Your task to perform on an android device: change notifications settings Image 0: 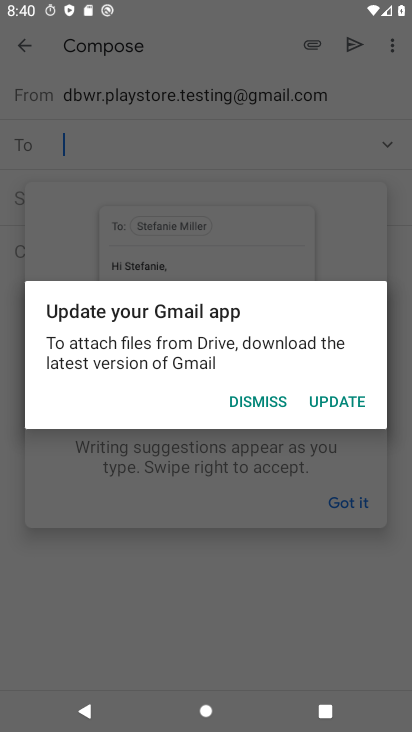
Step 0: press home button
Your task to perform on an android device: change notifications settings Image 1: 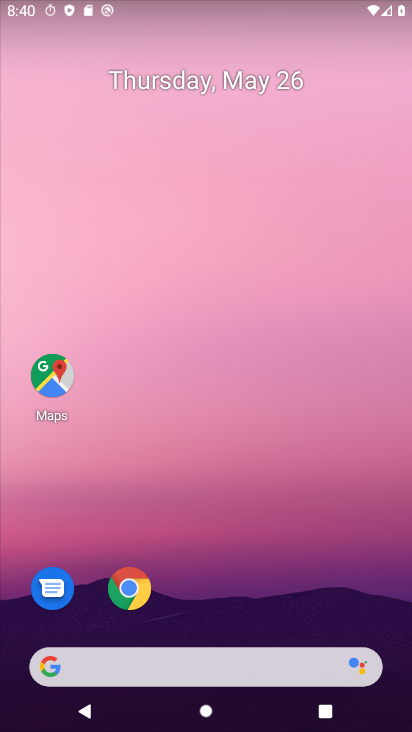
Step 1: drag from (243, 589) to (243, 21)
Your task to perform on an android device: change notifications settings Image 2: 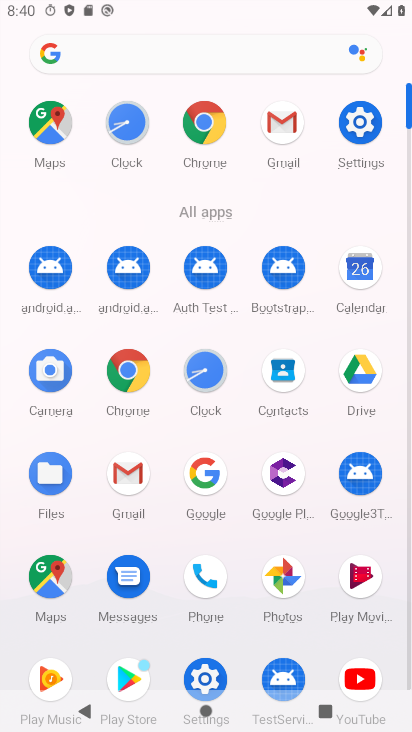
Step 2: click (360, 115)
Your task to perform on an android device: change notifications settings Image 3: 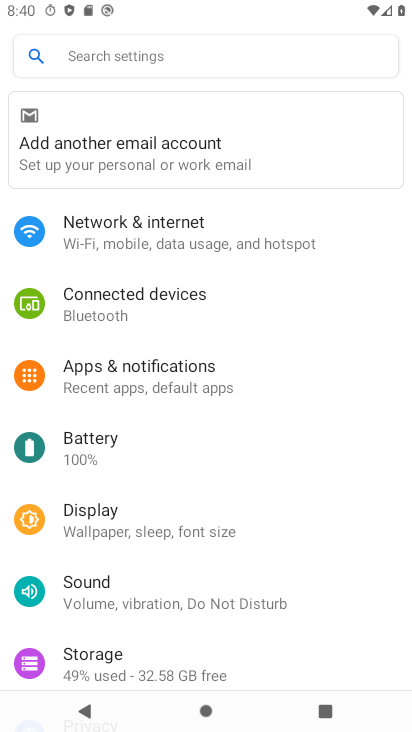
Step 3: click (174, 383)
Your task to perform on an android device: change notifications settings Image 4: 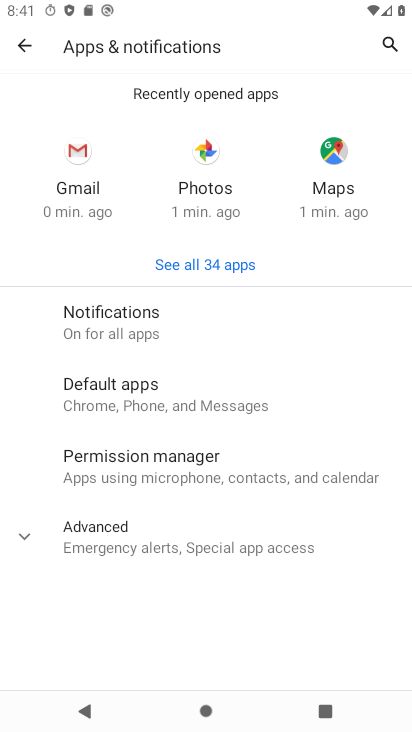
Step 4: click (161, 311)
Your task to perform on an android device: change notifications settings Image 5: 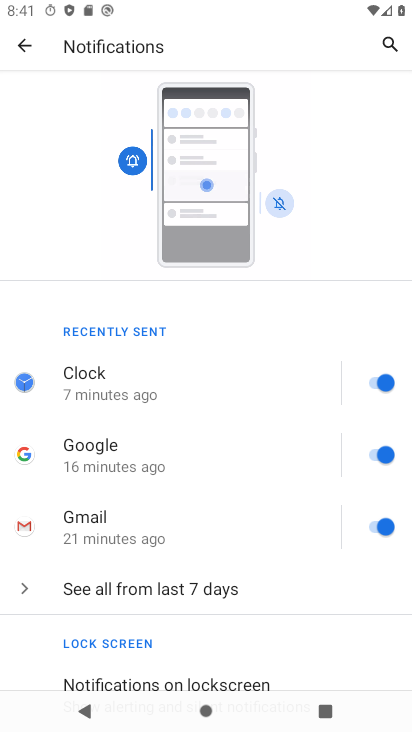
Step 5: drag from (165, 644) to (187, 544)
Your task to perform on an android device: change notifications settings Image 6: 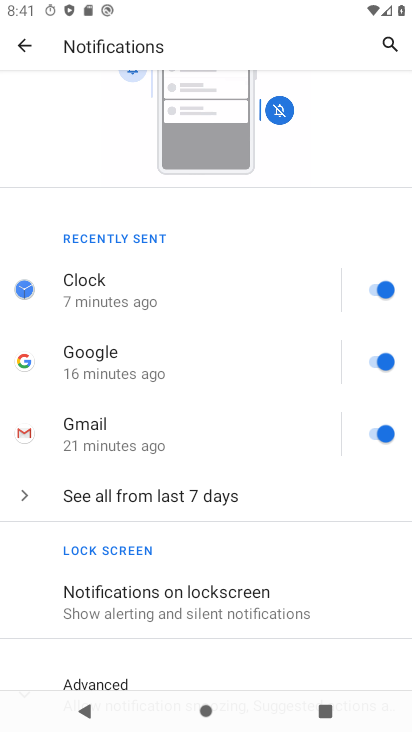
Step 6: click (173, 497)
Your task to perform on an android device: change notifications settings Image 7: 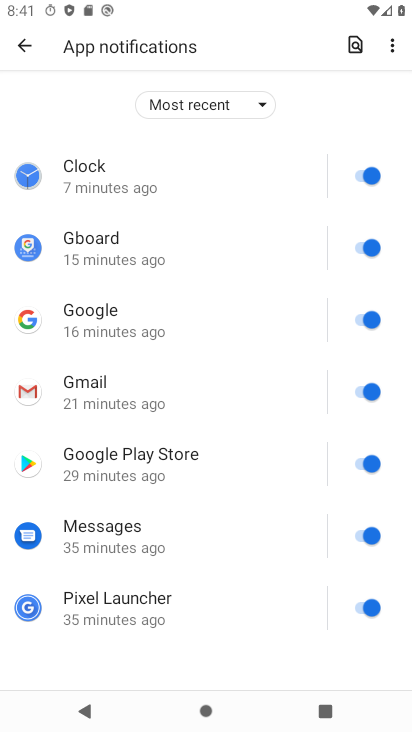
Step 7: click (354, 173)
Your task to perform on an android device: change notifications settings Image 8: 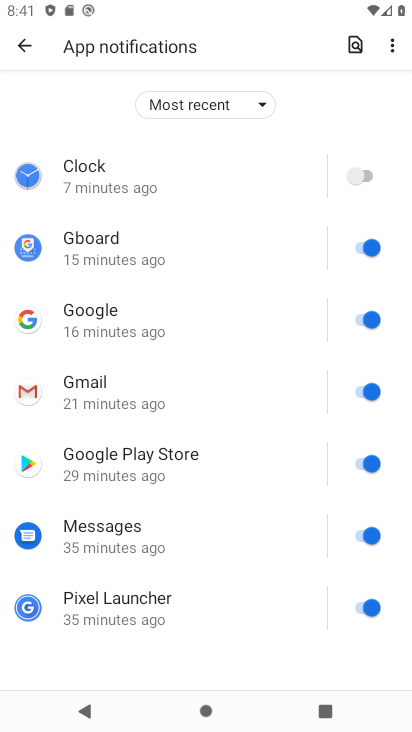
Step 8: click (366, 240)
Your task to perform on an android device: change notifications settings Image 9: 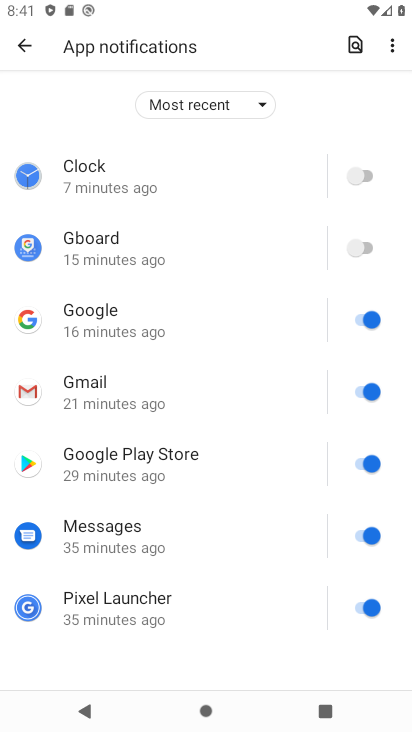
Step 9: click (352, 328)
Your task to perform on an android device: change notifications settings Image 10: 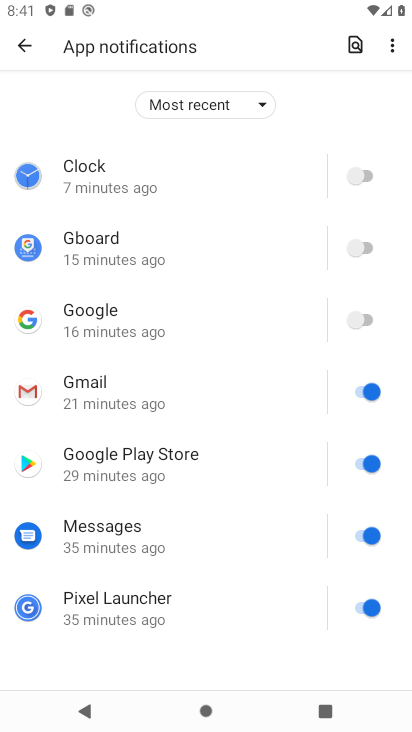
Step 10: click (377, 390)
Your task to perform on an android device: change notifications settings Image 11: 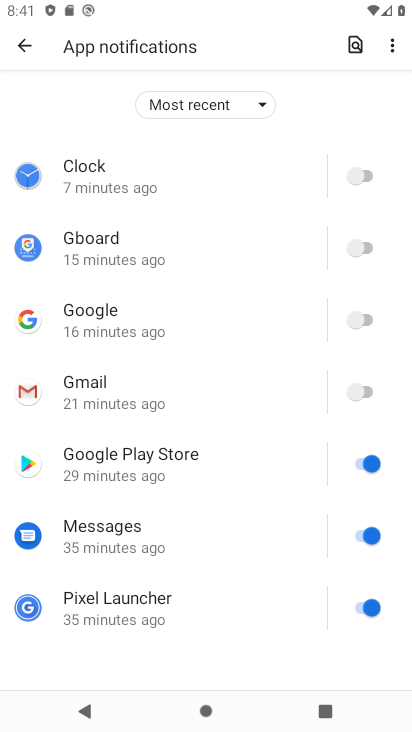
Step 11: click (364, 464)
Your task to perform on an android device: change notifications settings Image 12: 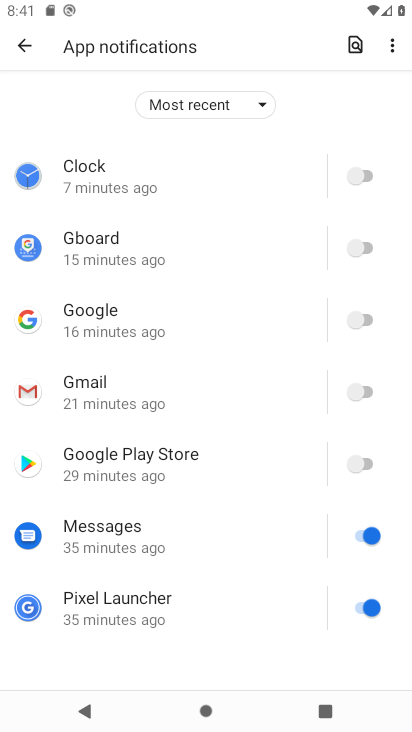
Step 12: click (359, 542)
Your task to perform on an android device: change notifications settings Image 13: 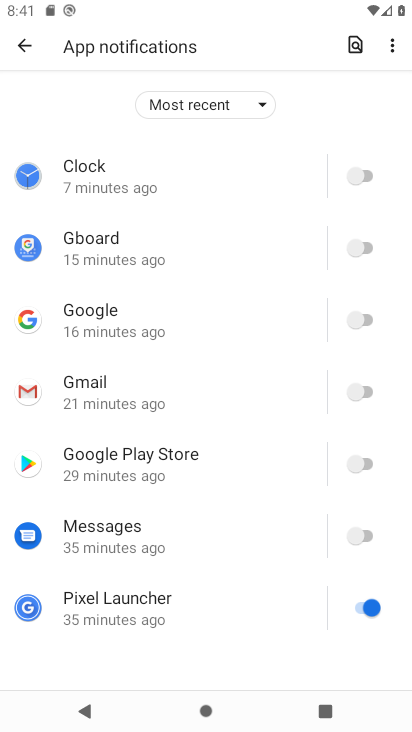
Step 13: click (371, 618)
Your task to perform on an android device: change notifications settings Image 14: 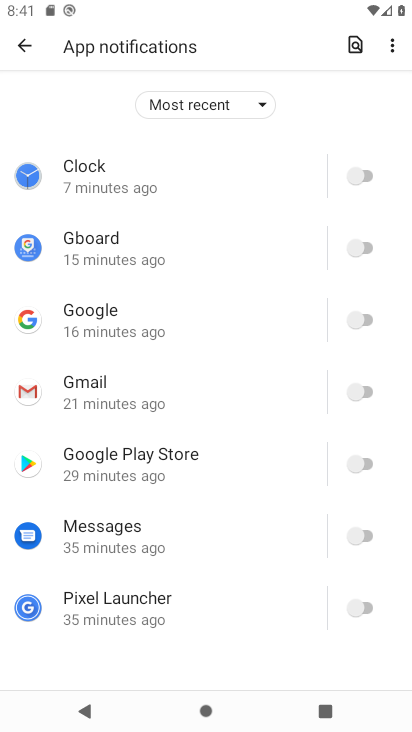
Step 14: drag from (281, 624) to (265, 151)
Your task to perform on an android device: change notifications settings Image 15: 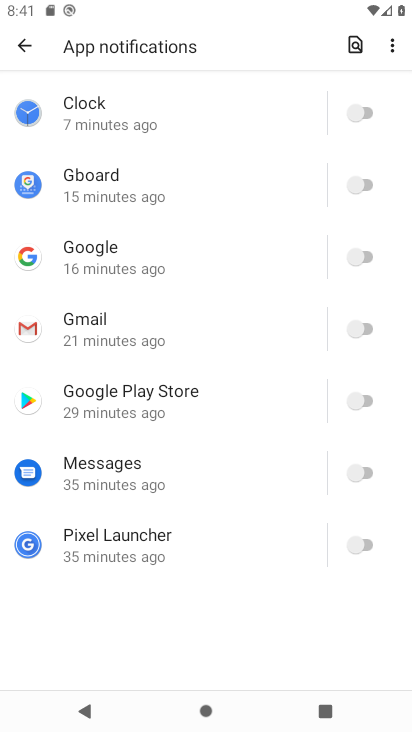
Step 15: click (29, 52)
Your task to perform on an android device: change notifications settings Image 16: 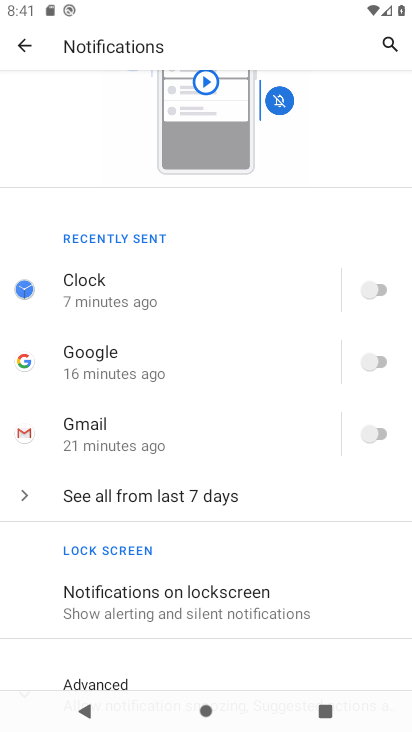
Step 16: click (132, 605)
Your task to perform on an android device: change notifications settings Image 17: 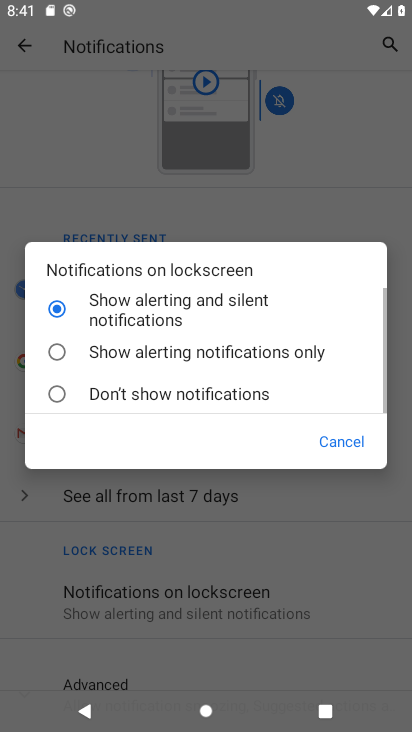
Step 17: click (105, 353)
Your task to perform on an android device: change notifications settings Image 18: 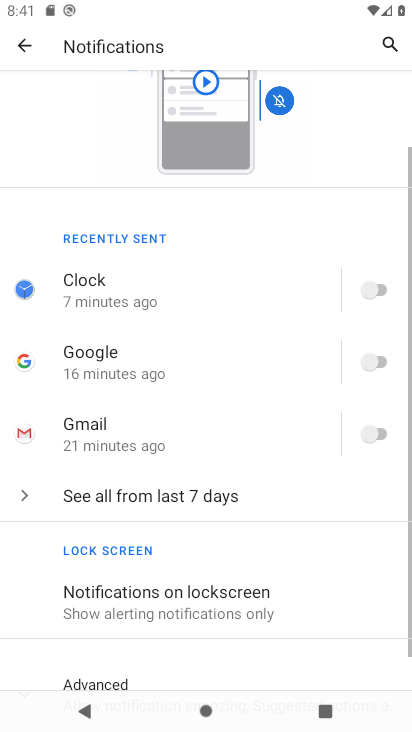
Step 18: drag from (143, 579) to (158, 148)
Your task to perform on an android device: change notifications settings Image 19: 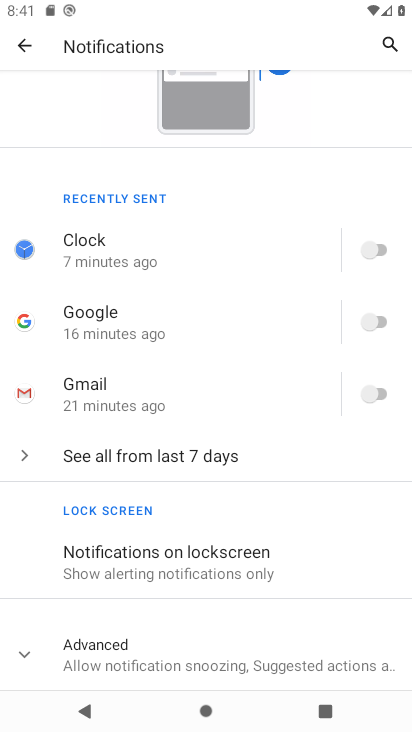
Step 19: click (125, 657)
Your task to perform on an android device: change notifications settings Image 20: 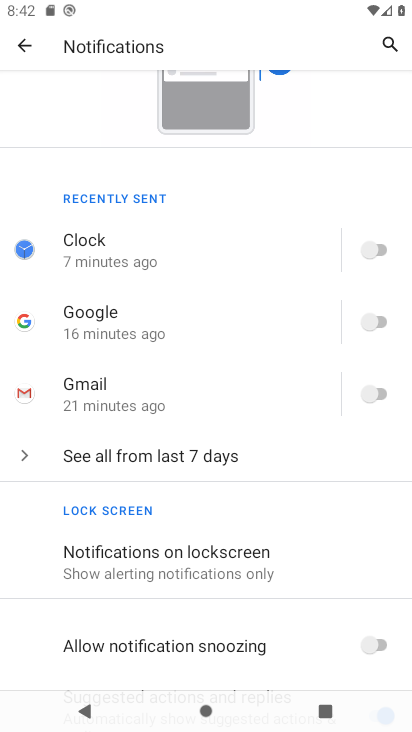
Step 20: drag from (162, 626) to (180, 238)
Your task to perform on an android device: change notifications settings Image 21: 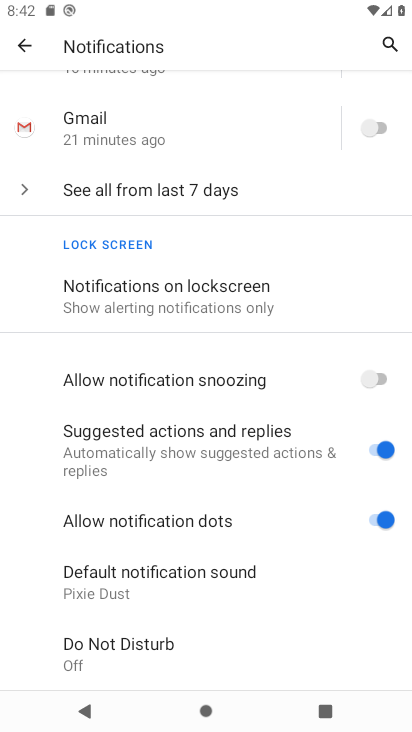
Step 21: click (381, 384)
Your task to perform on an android device: change notifications settings Image 22: 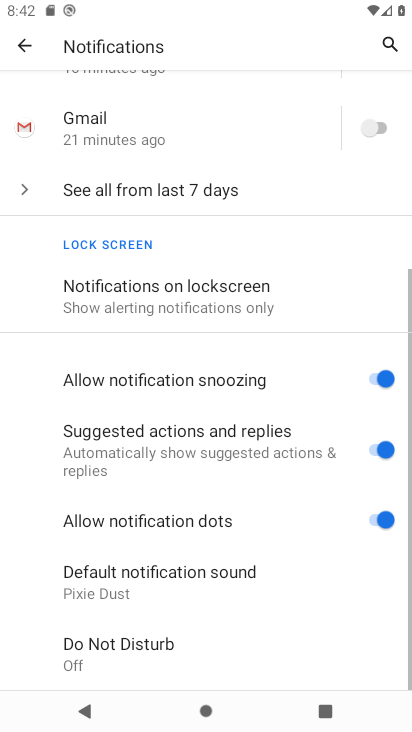
Step 22: click (385, 444)
Your task to perform on an android device: change notifications settings Image 23: 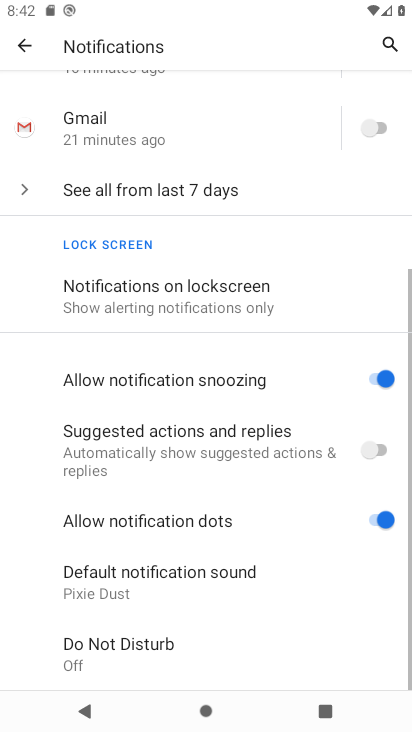
Step 23: click (377, 522)
Your task to perform on an android device: change notifications settings Image 24: 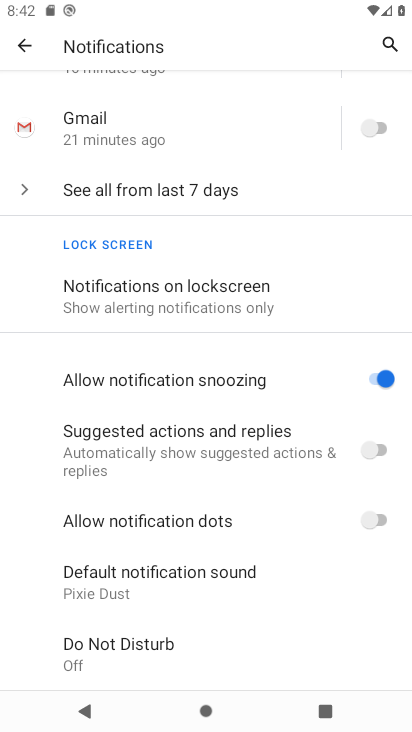
Step 24: task complete